Your task to perform on an android device: Go to internet settings Image 0: 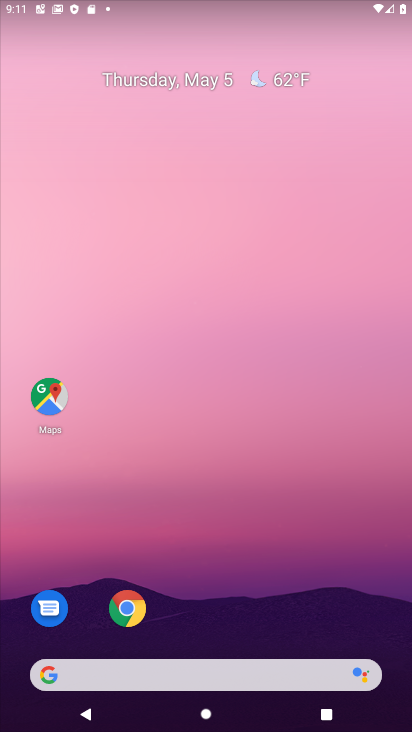
Step 0: drag from (276, 497) to (196, 5)
Your task to perform on an android device: Go to internet settings Image 1: 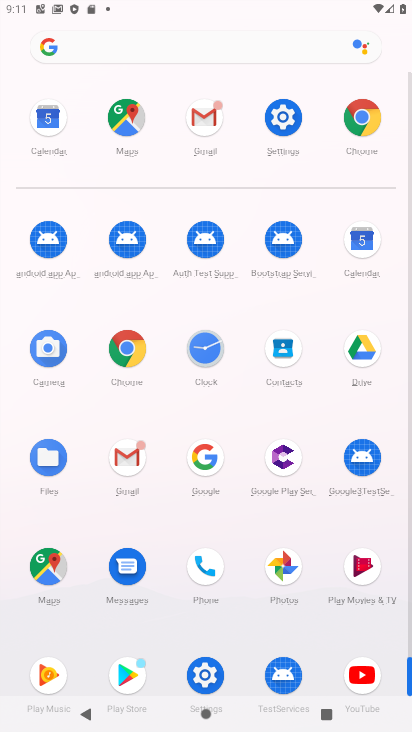
Step 1: click (205, 672)
Your task to perform on an android device: Go to internet settings Image 2: 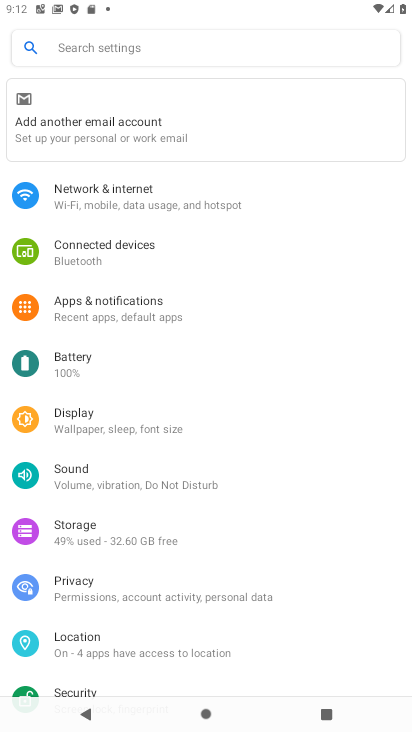
Step 2: click (160, 200)
Your task to perform on an android device: Go to internet settings Image 3: 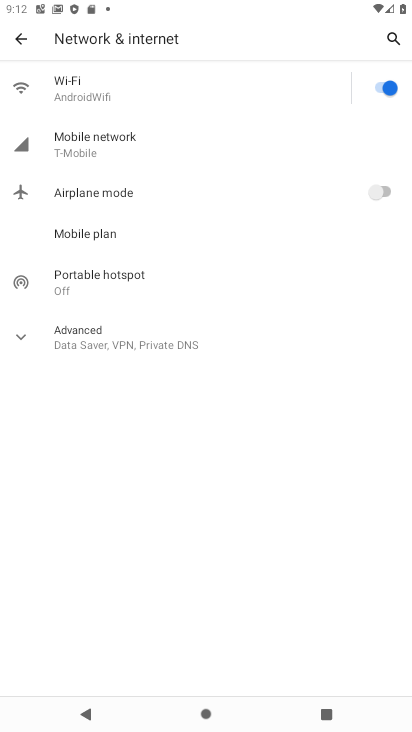
Step 3: click (70, 338)
Your task to perform on an android device: Go to internet settings Image 4: 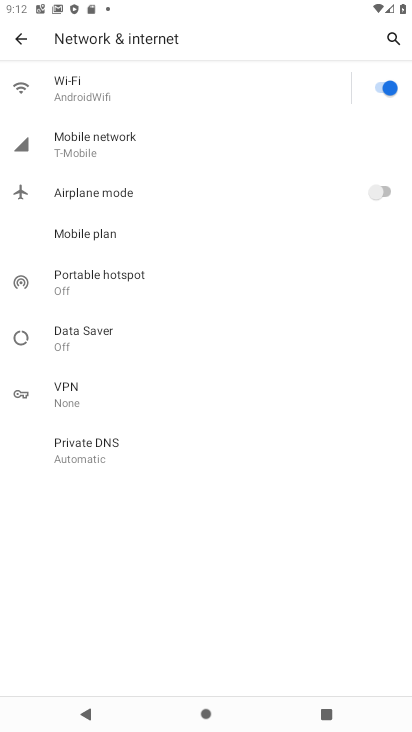
Step 4: click (103, 142)
Your task to perform on an android device: Go to internet settings Image 5: 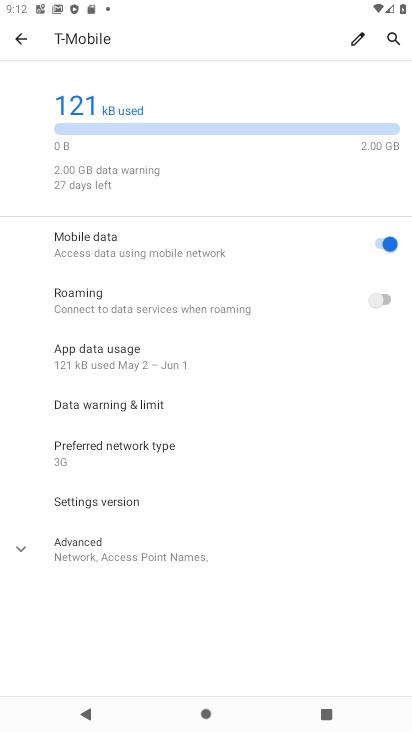
Step 5: task complete